Your task to perform on an android device: stop showing notifications on the lock screen Image 0: 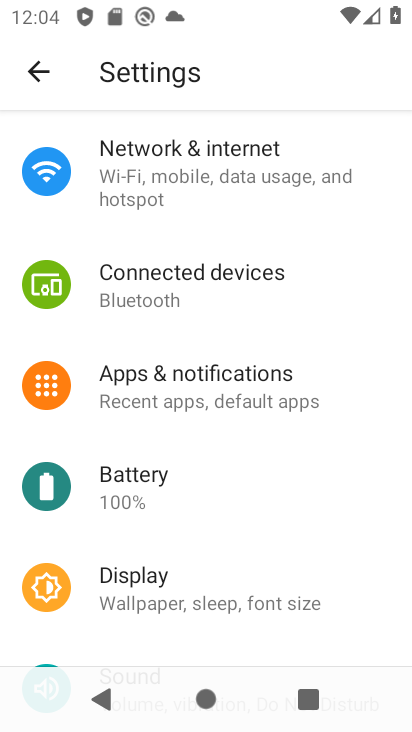
Step 0: click (162, 407)
Your task to perform on an android device: stop showing notifications on the lock screen Image 1: 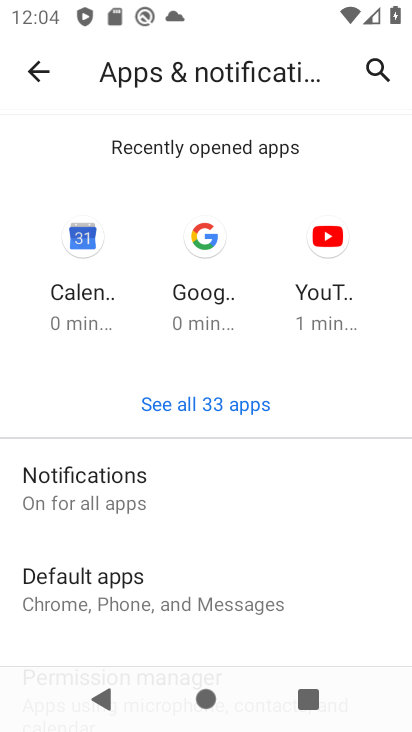
Step 1: click (132, 500)
Your task to perform on an android device: stop showing notifications on the lock screen Image 2: 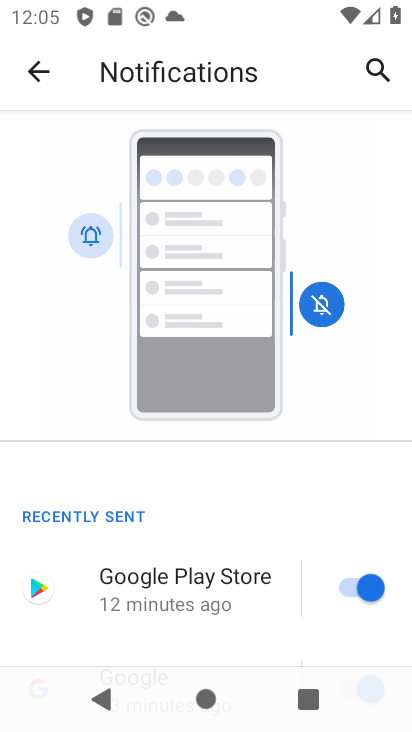
Step 2: drag from (168, 621) to (181, 240)
Your task to perform on an android device: stop showing notifications on the lock screen Image 3: 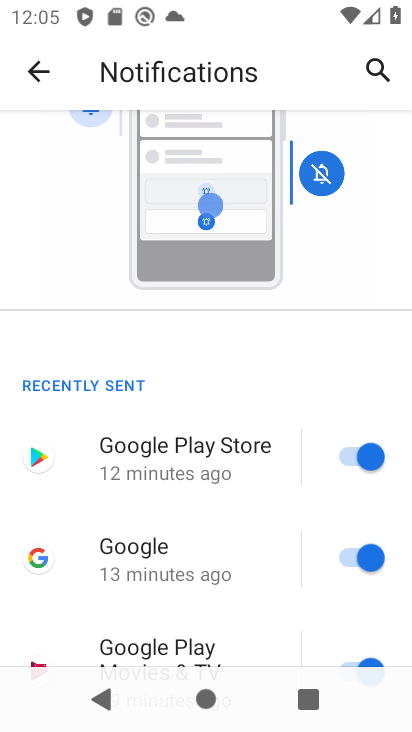
Step 3: drag from (212, 613) to (204, 283)
Your task to perform on an android device: stop showing notifications on the lock screen Image 4: 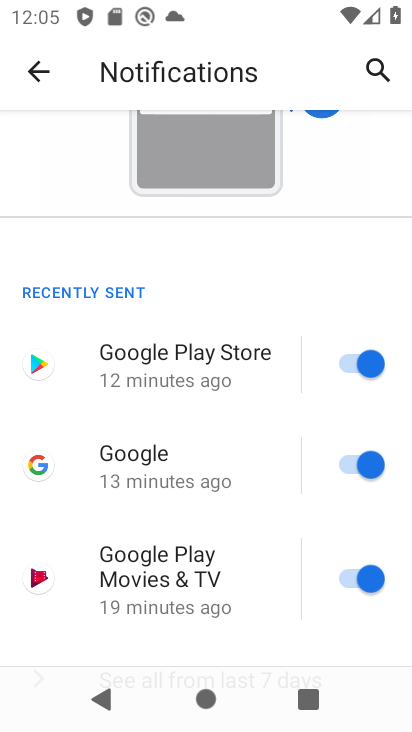
Step 4: drag from (160, 611) to (158, 236)
Your task to perform on an android device: stop showing notifications on the lock screen Image 5: 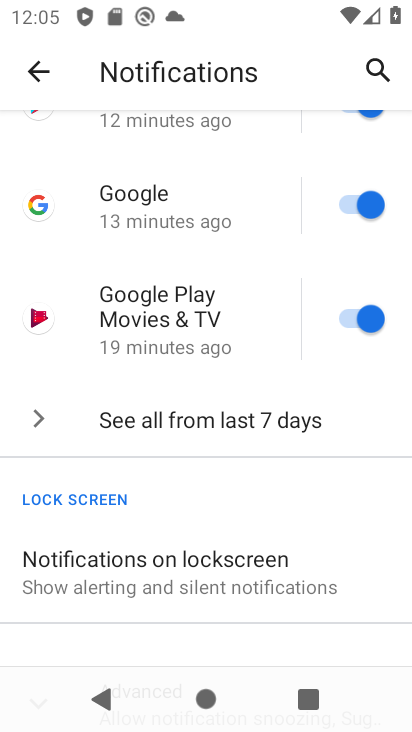
Step 5: click (233, 578)
Your task to perform on an android device: stop showing notifications on the lock screen Image 6: 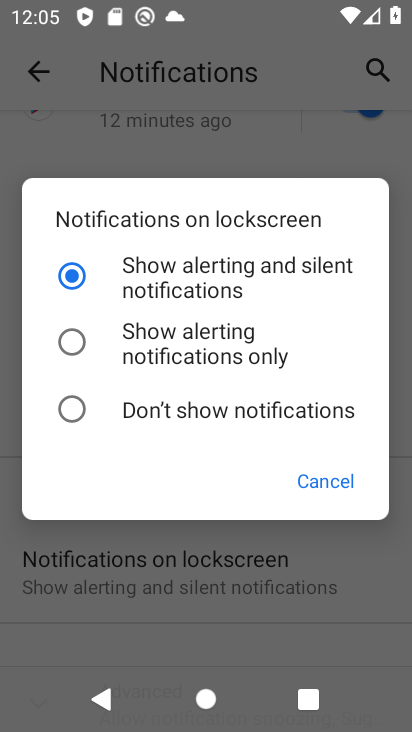
Step 6: click (168, 417)
Your task to perform on an android device: stop showing notifications on the lock screen Image 7: 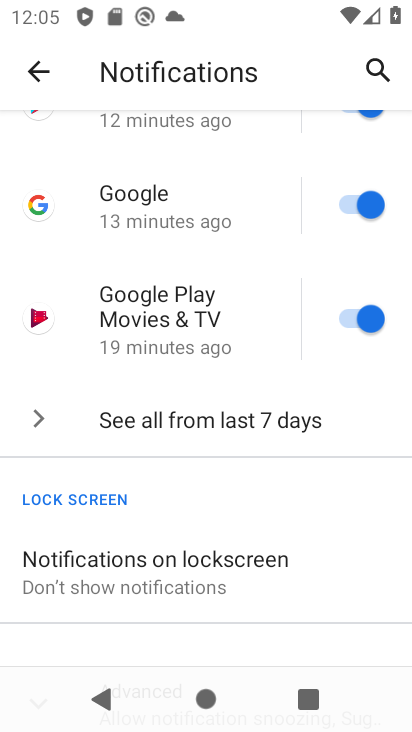
Step 7: task complete